Your task to perform on an android device: Go to network settings Image 0: 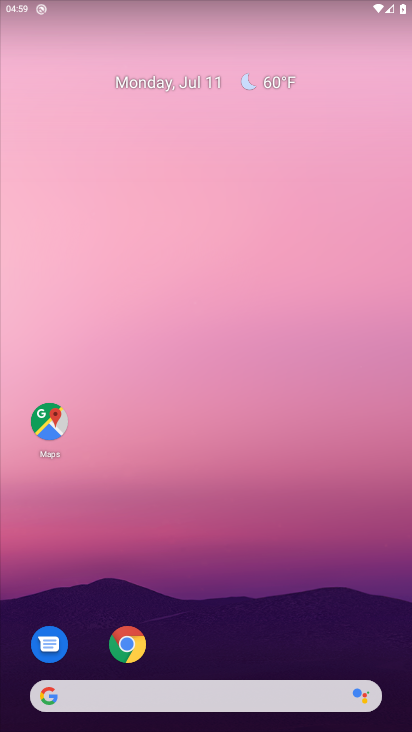
Step 0: drag from (200, 580) to (163, 365)
Your task to perform on an android device: Go to network settings Image 1: 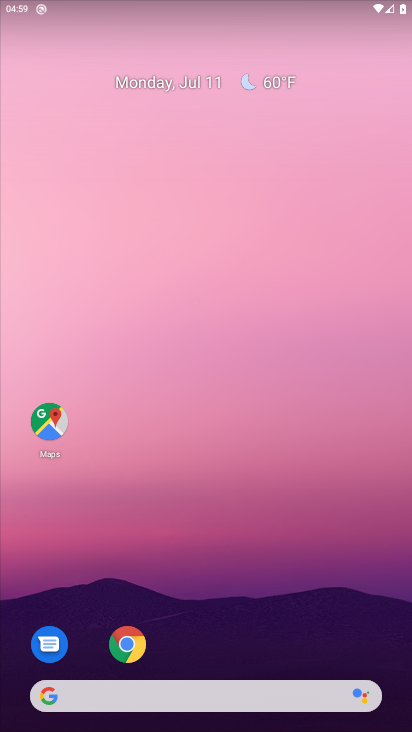
Step 1: drag from (265, 671) to (227, 275)
Your task to perform on an android device: Go to network settings Image 2: 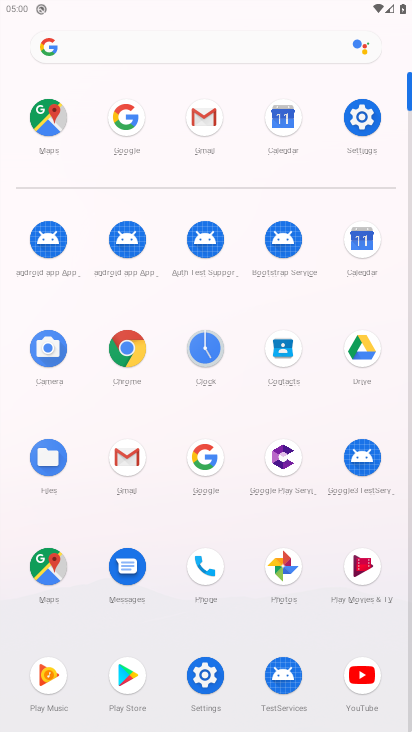
Step 2: click (352, 125)
Your task to perform on an android device: Go to network settings Image 3: 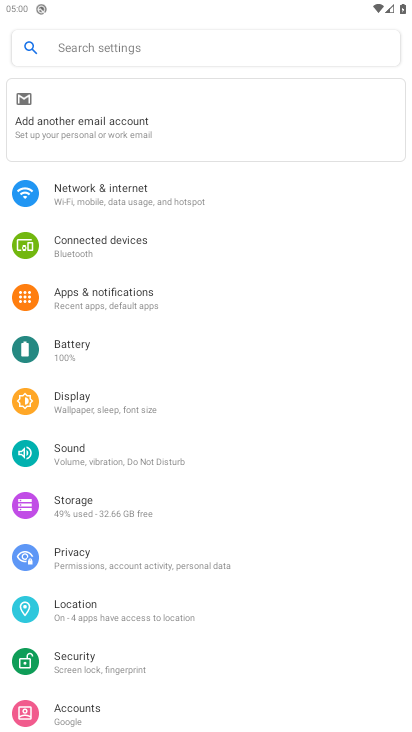
Step 3: click (115, 201)
Your task to perform on an android device: Go to network settings Image 4: 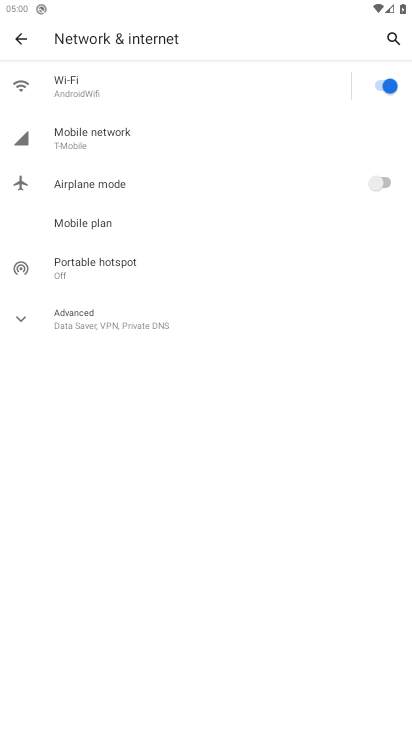
Step 4: click (87, 318)
Your task to perform on an android device: Go to network settings Image 5: 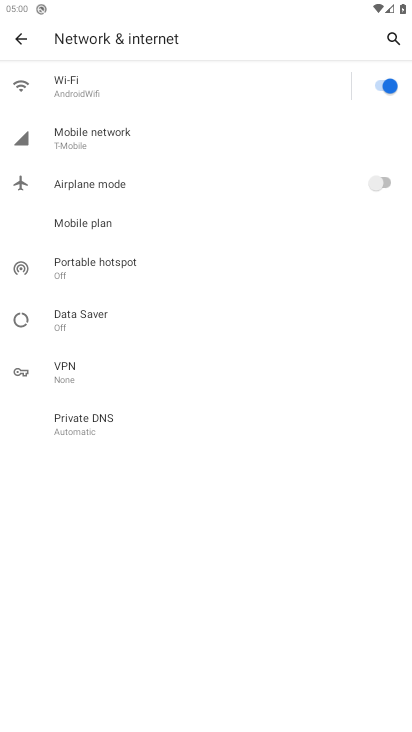
Step 5: task complete